Your task to perform on an android device: What's the weather going to be this weekend? Image 0: 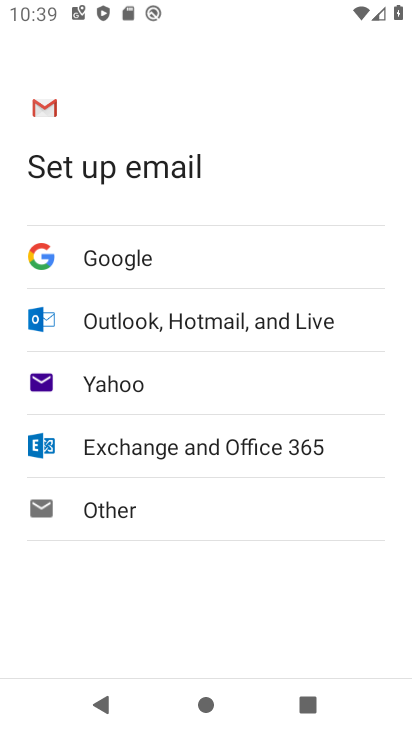
Step 0: press home button
Your task to perform on an android device: What's the weather going to be this weekend? Image 1: 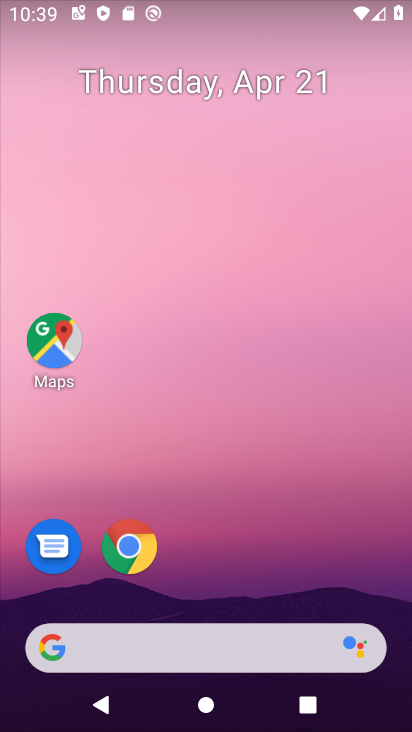
Step 1: drag from (330, 560) to (292, 79)
Your task to perform on an android device: What's the weather going to be this weekend? Image 2: 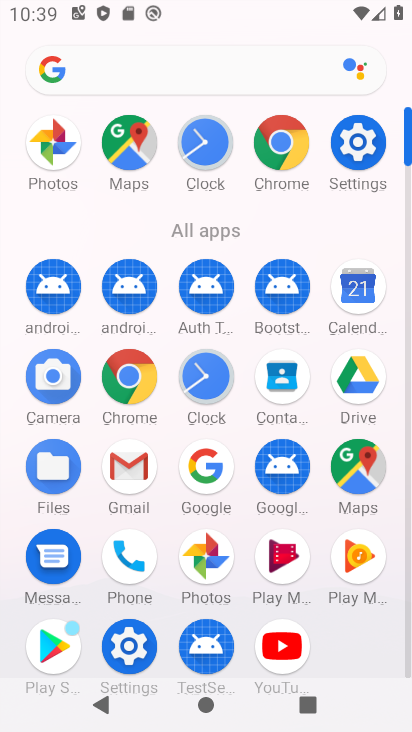
Step 2: click (135, 377)
Your task to perform on an android device: What's the weather going to be this weekend? Image 3: 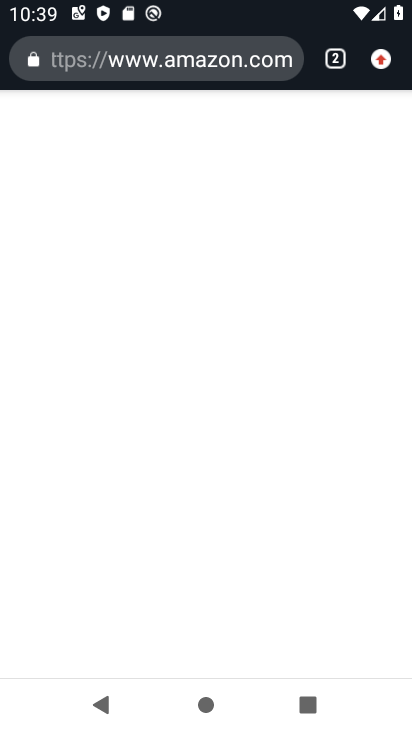
Step 3: click (196, 73)
Your task to perform on an android device: What's the weather going to be this weekend? Image 4: 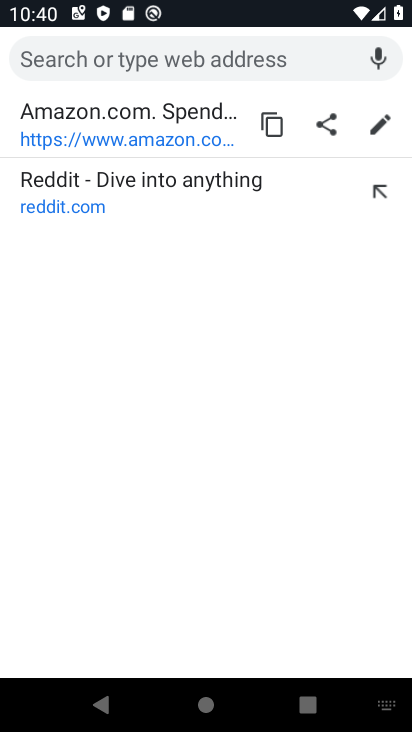
Step 4: type "weather"
Your task to perform on an android device: What's the weather going to be this weekend? Image 5: 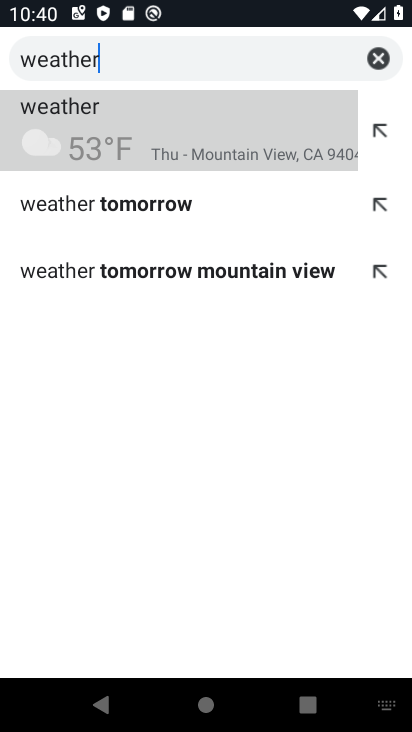
Step 5: click (103, 117)
Your task to perform on an android device: What's the weather going to be this weekend? Image 6: 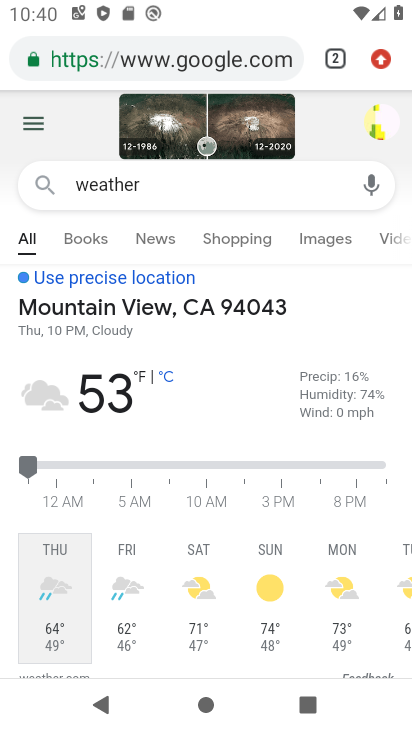
Step 6: task complete